Your task to perform on an android device: Turn on the flashlight Image 0: 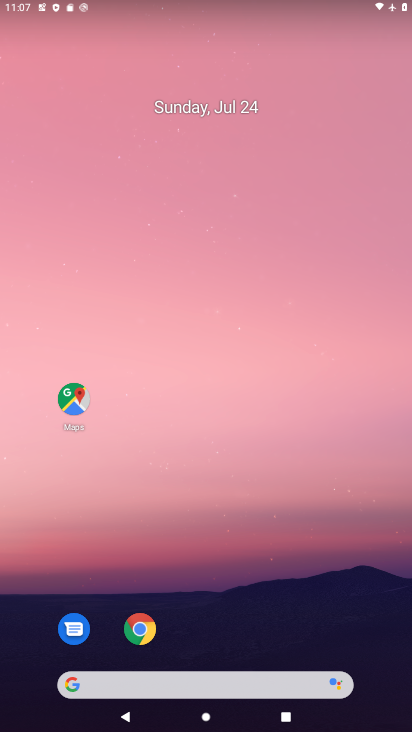
Step 0: task impossible